Your task to perform on an android device: open a bookmark in the chrome app Image 0: 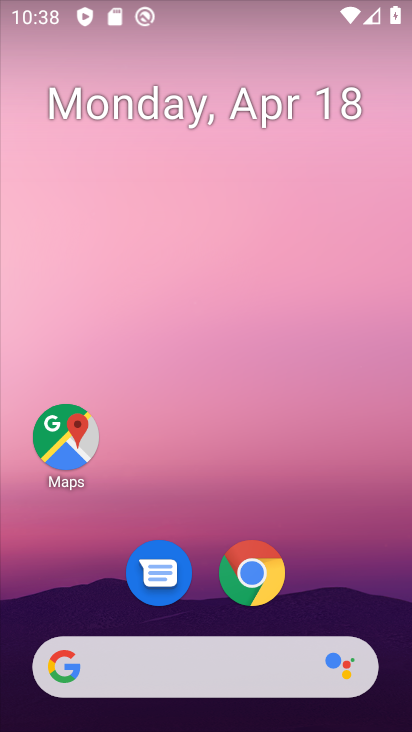
Step 0: click (262, 587)
Your task to perform on an android device: open a bookmark in the chrome app Image 1: 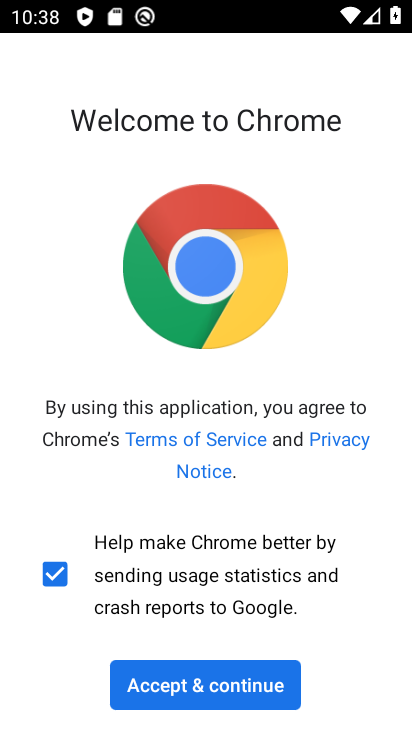
Step 1: click (234, 680)
Your task to perform on an android device: open a bookmark in the chrome app Image 2: 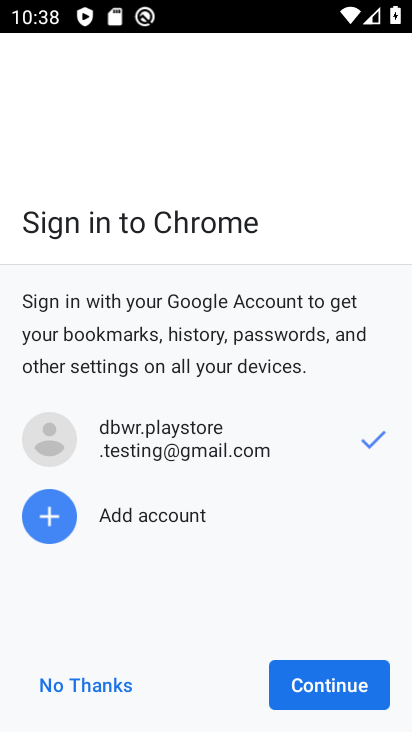
Step 2: click (357, 697)
Your task to perform on an android device: open a bookmark in the chrome app Image 3: 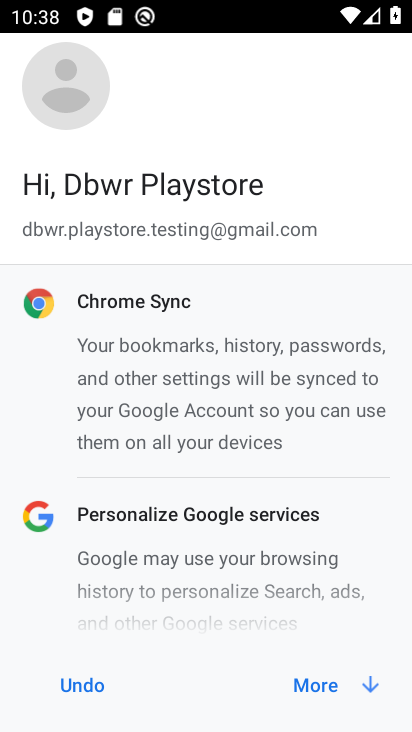
Step 3: click (357, 697)
Your task to perform on an android device: open a bookmark in the chrome app Image 4: 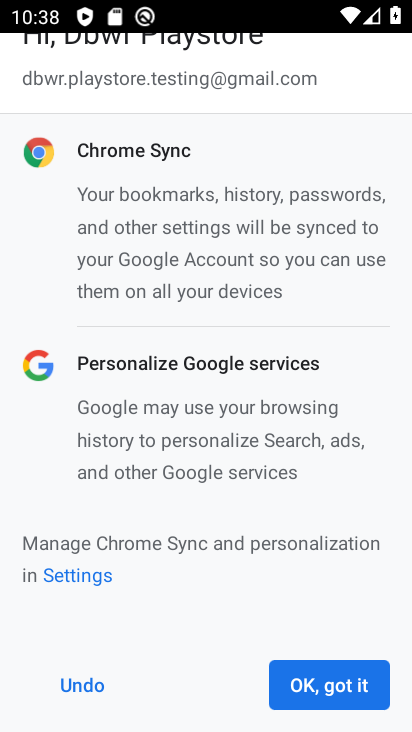
Step 4: click (349, 688)
Your task to perform on an android device: open a bookmark in the chrome app Image 5: 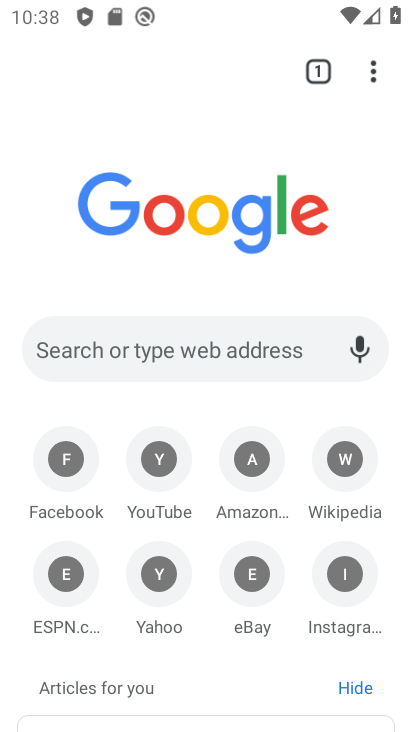
Step 5: click (369, 73)
Your task to perform on an android device: open a bookmark in the chrome app Image 6: 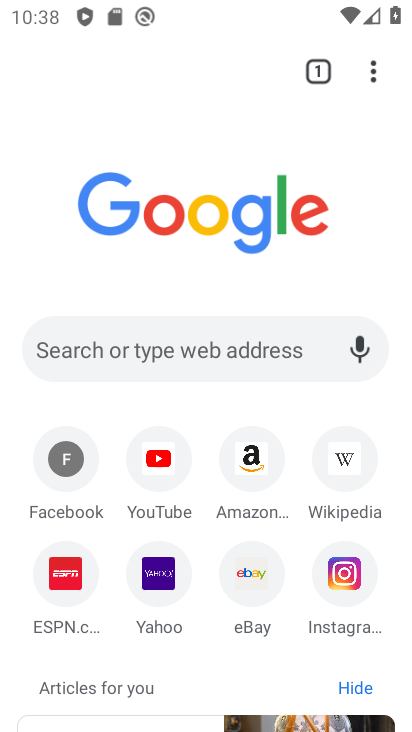
Step 6: click (373, 71)
Your task to perform on an android device: open a bookmark in the chrome app Image 7: 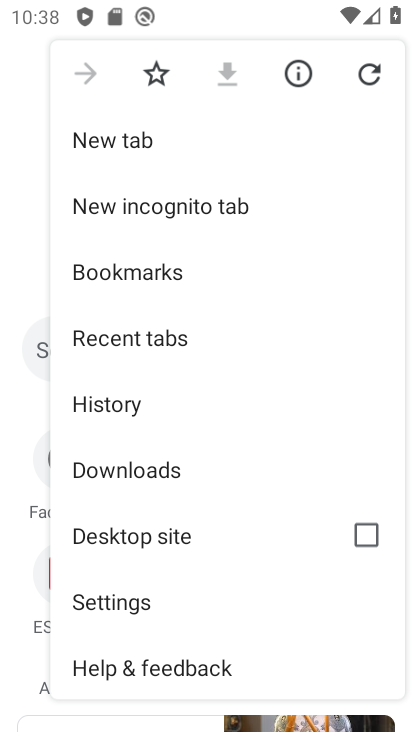
Step 7: click (108, 272)
Your task to perform on an android device: open a bookmark in the chrome app Image 8: 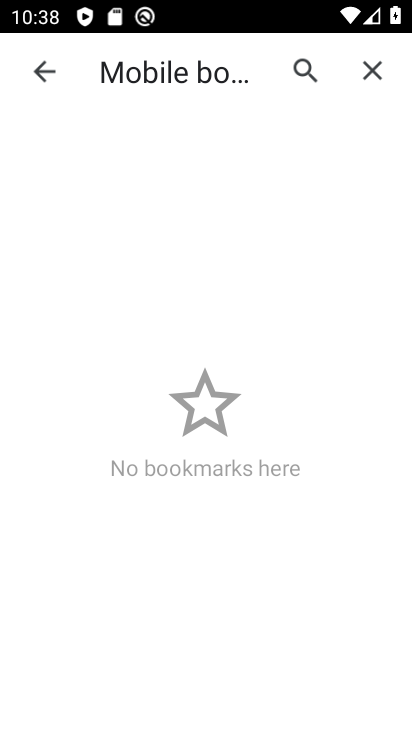
Step 8: task complete